Your task to perform on an android device: Open Wikipedia Image 0: 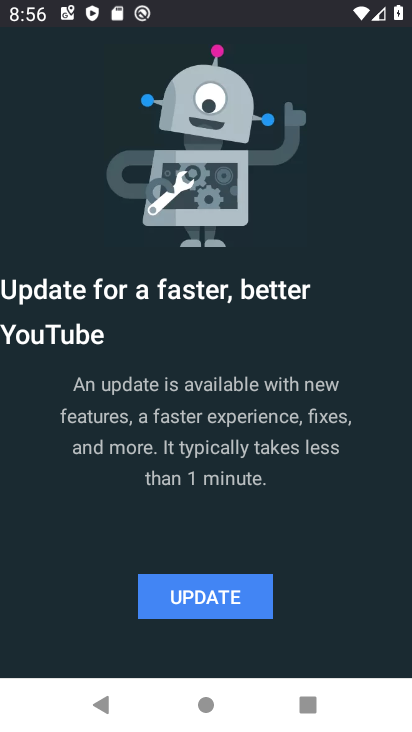
Step 0: press home button
Your task to perform on an android device: Open Wikipedia Image 1: 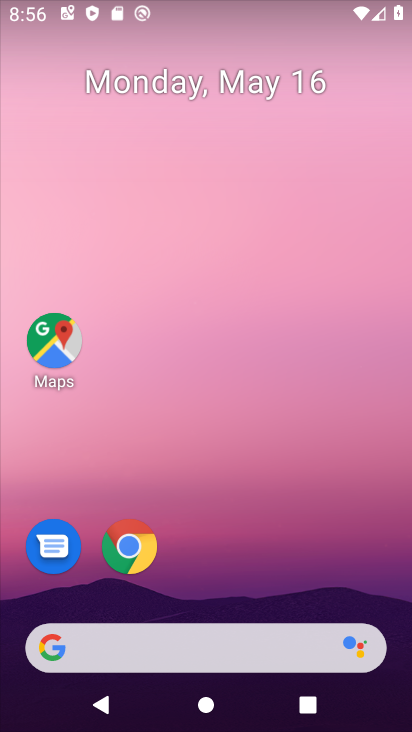
Step 1: drag from (262, 668) to (212, 229)
Your task to perform on an android device: Open Wikipedia Image 2: 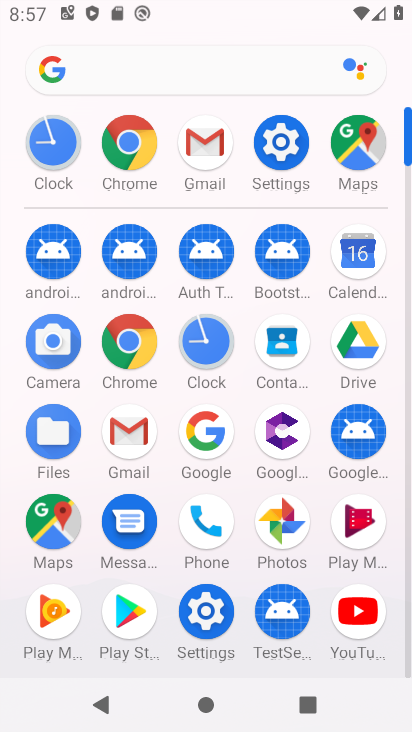
Step 2: click (133, 140)
Your task to perform on an android device: Open Wikipedia Image 3: 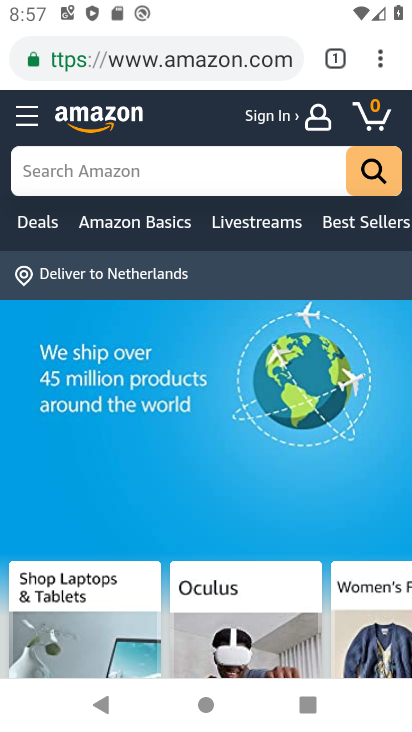
Step 3: click (178, 65)
Your task to perform on an android device: Open Wikipedia Image 4: 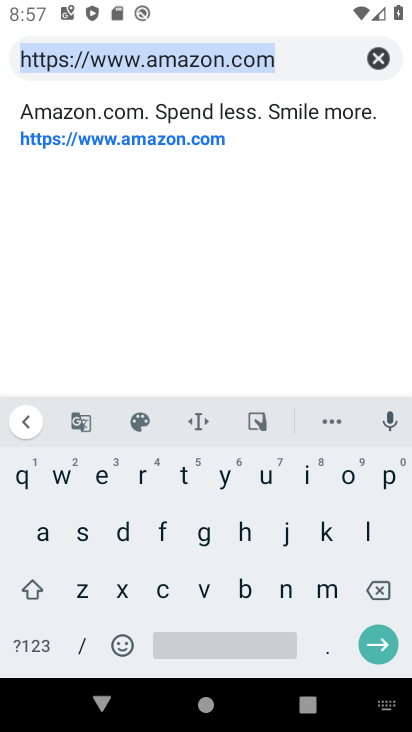
Step 4: click (377, 59)
Your task to perform on an android device: Open Wikipedia Image 5: 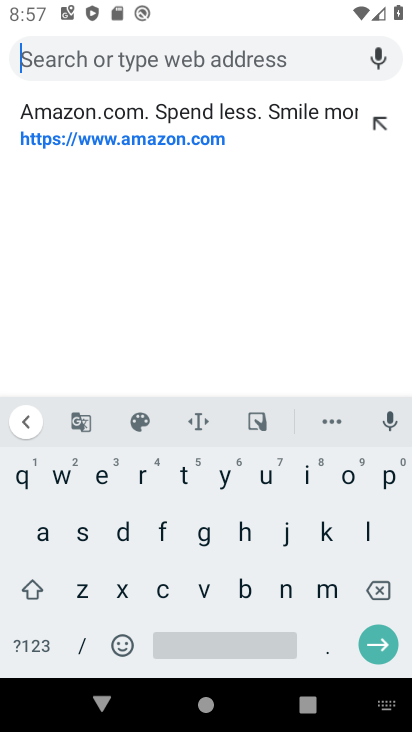
Step 5: click (71, 483)
Your task to perform on an android device: Open Wikipedia Image 6: 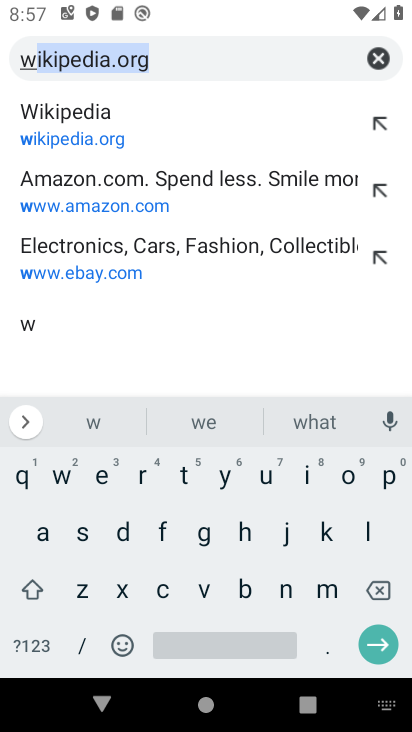
Step 6: click (193, 61)
Your task to perform on an android device: Open Wikipedia Image 7: 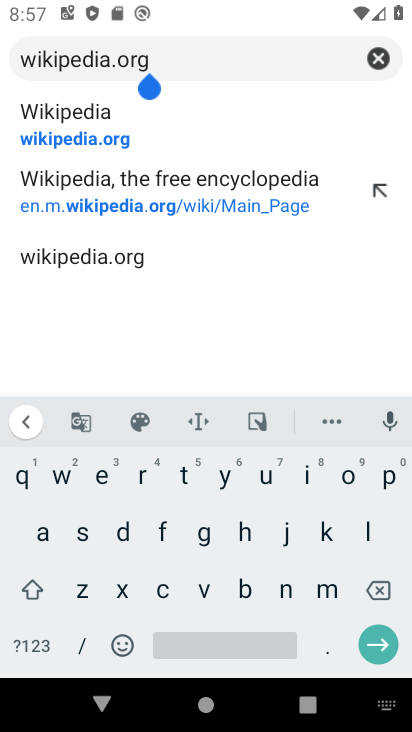
Step 7: click (381, 590)
Your task to perform on an android device: Open Wikipedia Image 8: 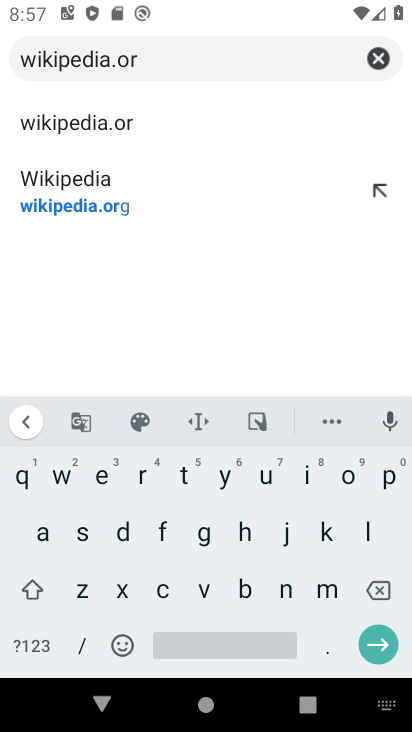
Step 8: click (381, 590)
Your task to perform on an android device: Open Wikipedia Image 9: 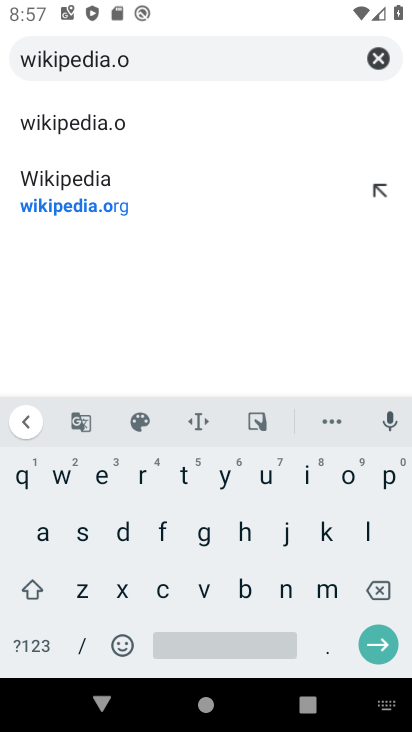
Step 9: click (380, 588)
Your task to perform on an android device: Open Wikipedia Image 10: 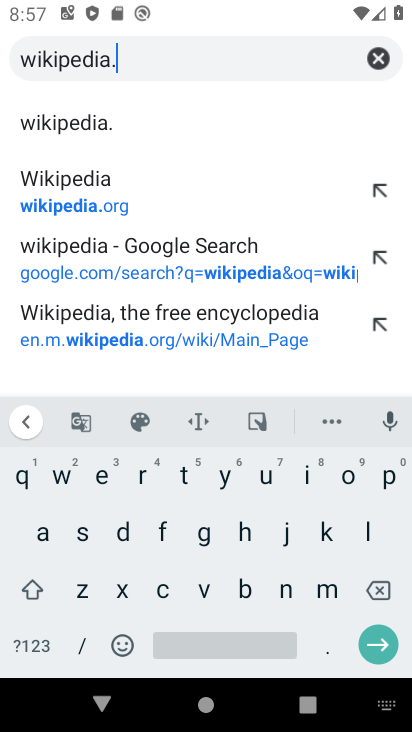
Step 10: click (380, 588)
Your task to perform on an android device: Open Wikipedia Image 11: 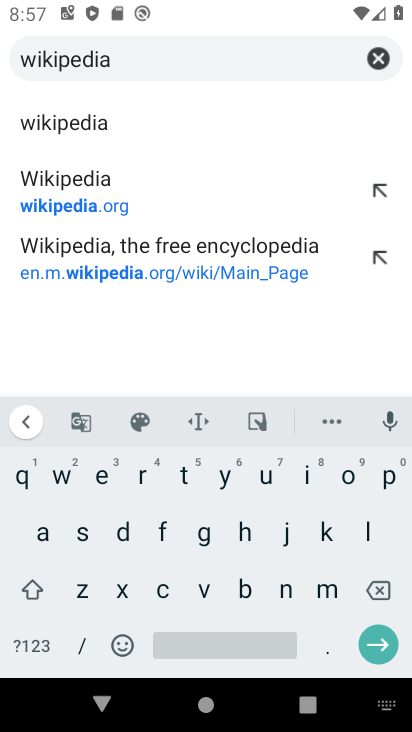
Step 11: click (369, 640)
Your task to perform on an android device: Open Wikipedia Image 12: 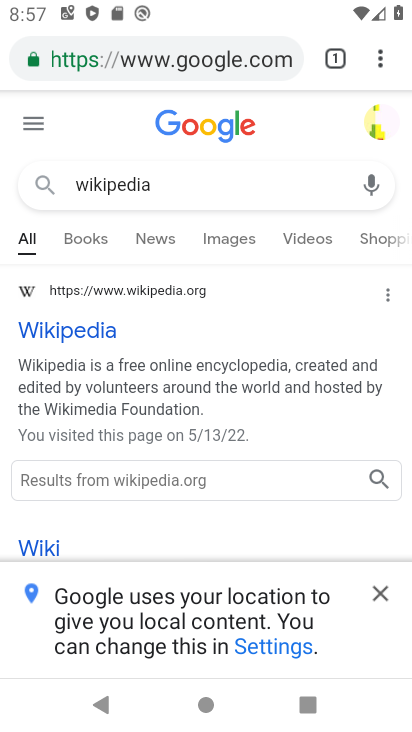
Step 12: click (100, 345)
Your task to perform on an android device: Open Wikipedia Image 13: 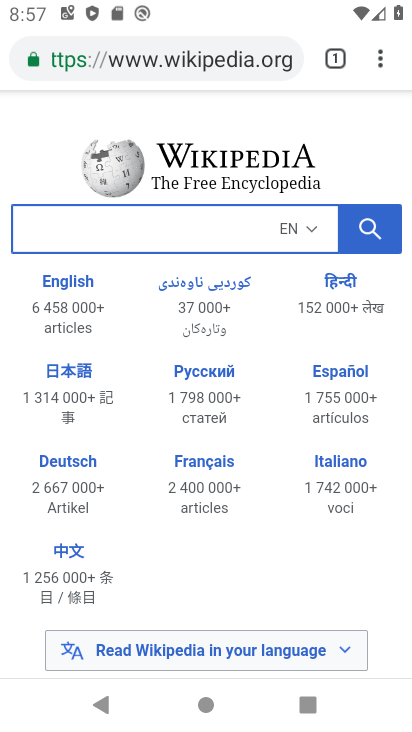
Step 13: task complete